Your task to perform on an android device: Search for vegetarian restaurants on Maps Image 0: 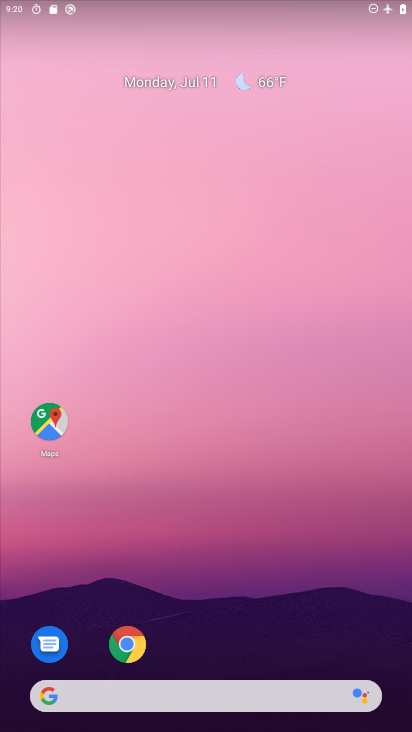
Step 0: drag from (268, 571) to (240, 60)
Your task to perform on an android device: Search for vegetarian restaurants on Maps Image 1: 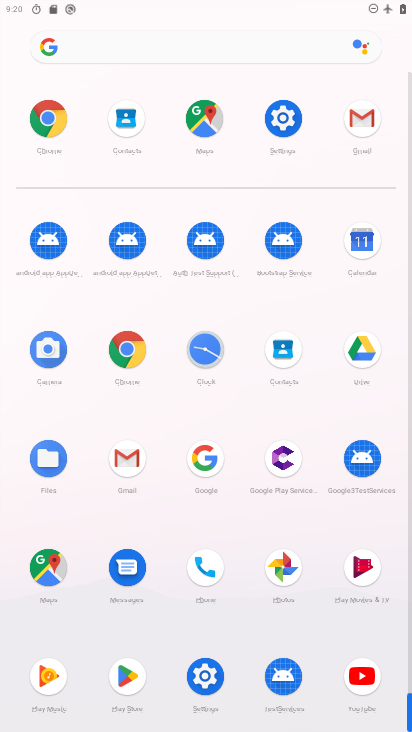
Step 1: click (208, 111)
Your task to perform on an android device: Search for vegetarian restaurants on Maps Image 2: 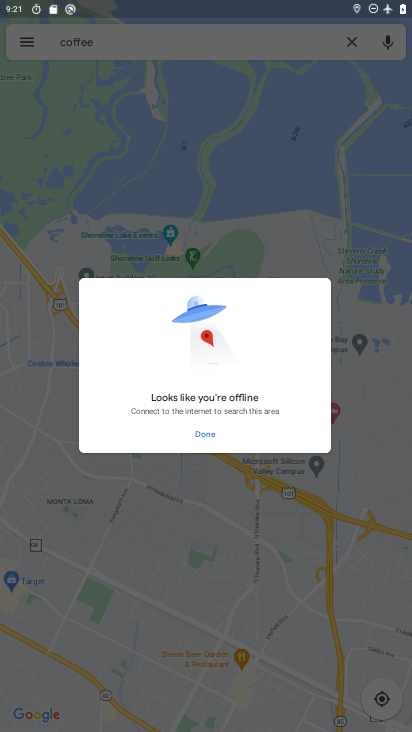
Step 2: task complete